Your task to perform on an android device: find which apps use the phone's location Image 0: 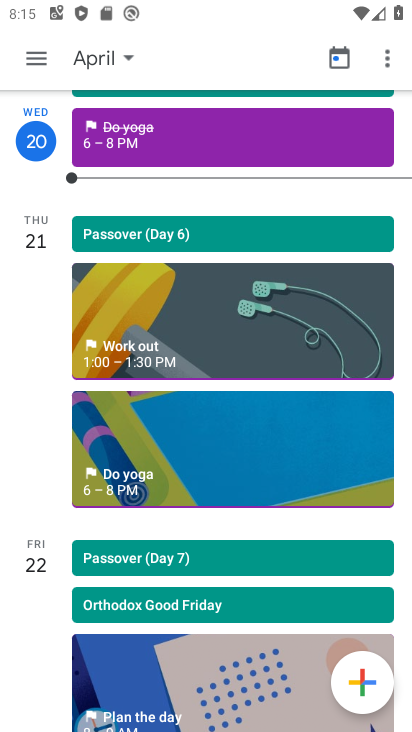
Step 0: press home button
Your task to perform on an android device: find which apps use the phone's location Image 1: 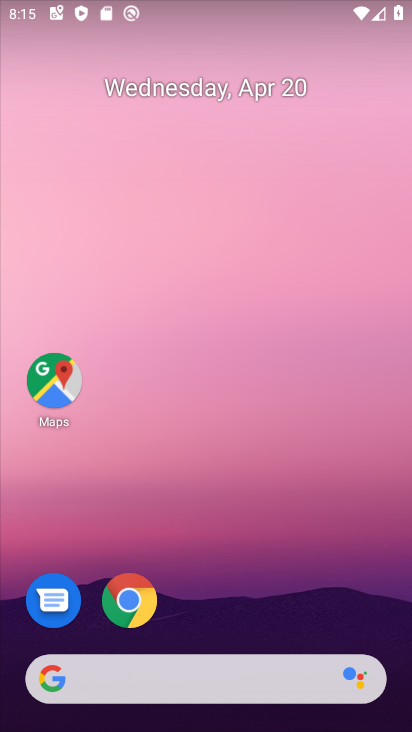
Step 1: drag from (181, 604) to (189, 42)
Your task to perform on an android device: find which apps use the phone's location Image 2: 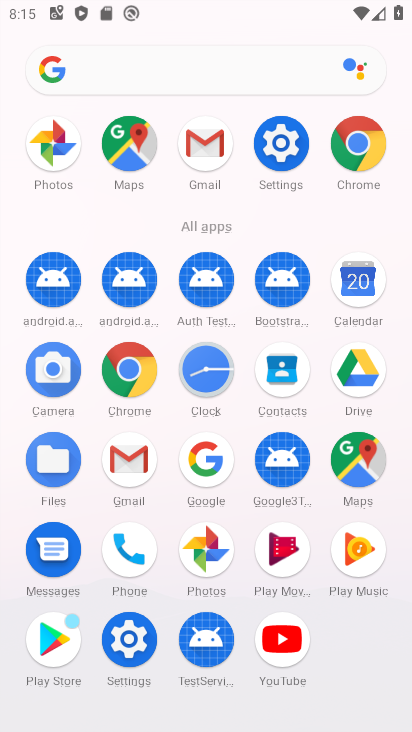
Step 2: click (286, 149)
Your task to perform on an android device: find which apps use the phone's location Image 3: 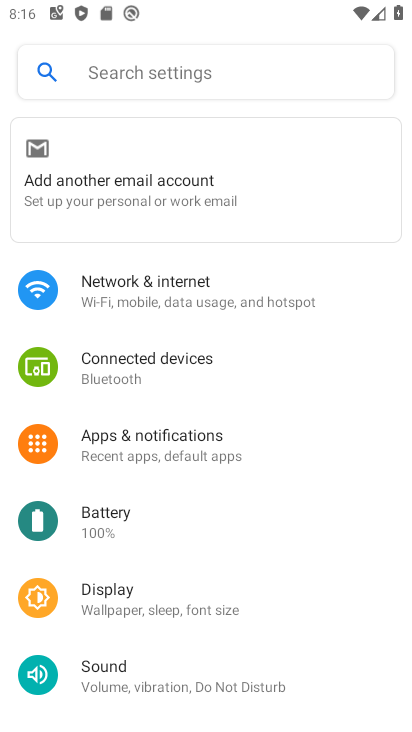
Step 3: drag from (188, 636) to (185, 326)
Your task to perform on an android device: find which apps use the phone's location Image 4: 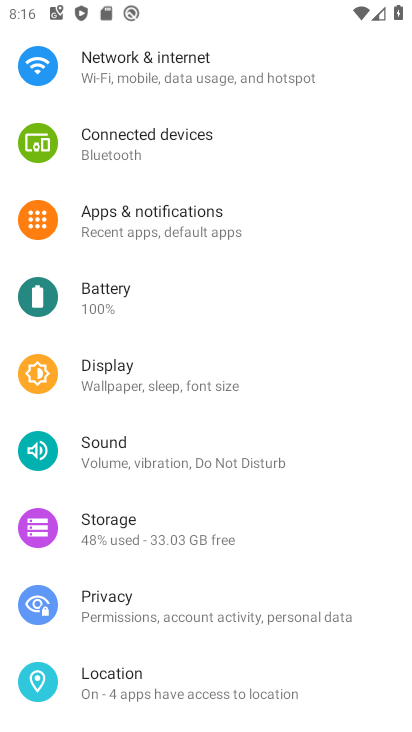
Step 4: click (151, 690)
Your task to perform on an android device: find which apps use the phone's location Image 5: 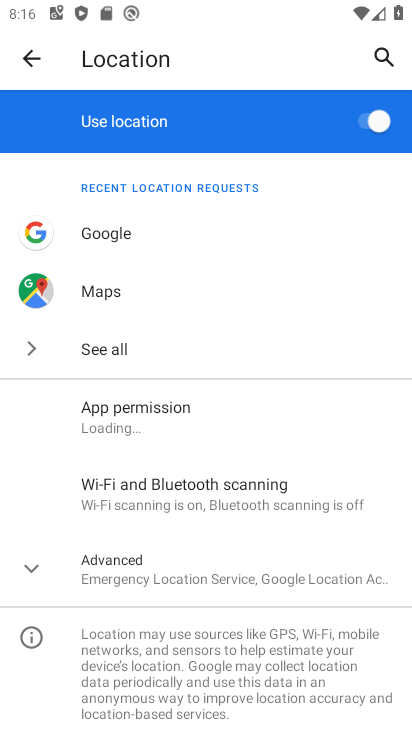
Step 5: click (86, 238)
Your task to perform on an android device: find which apps use the phone's location Image 6: 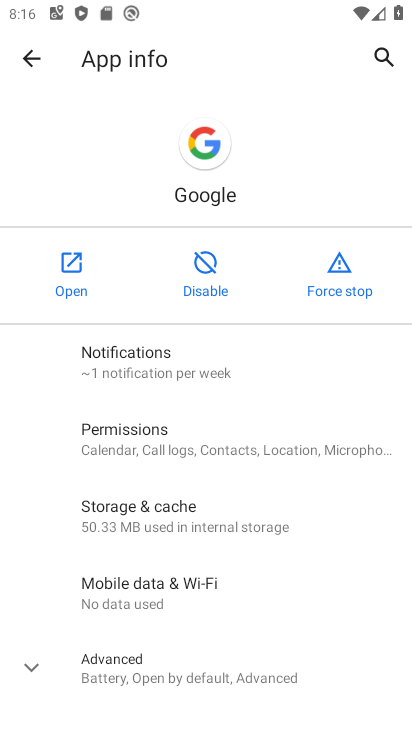
Step 6: click (184, 443)
Your task to perform on an android device: find which apps use the phone's location Image 7: 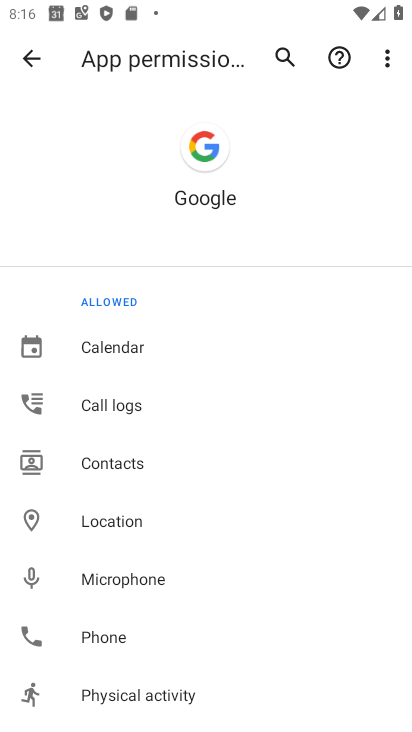
Step 7: click (120, 530)
Your task to perform on an android device: find which apps use the phone's location Image 8: 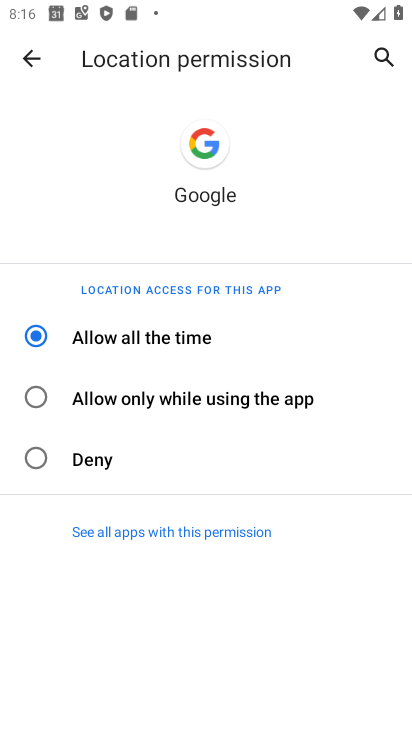
Step 8: task complete